Your task to perform on an android device: change the clock display to digital Image 0: 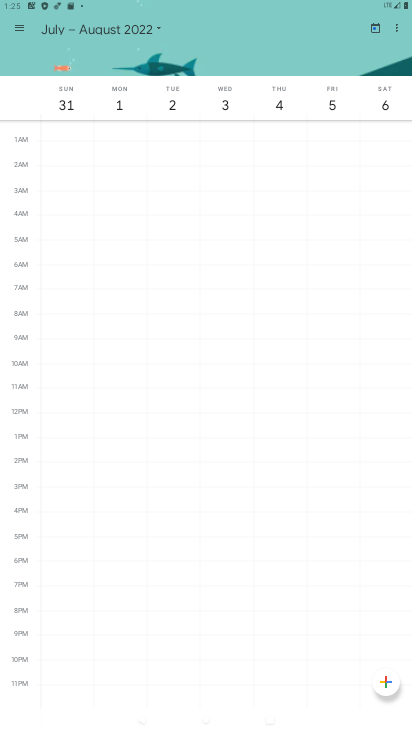
Step 0: press home button
Your task to perform on an android device: change the clock display to digital Image 1: 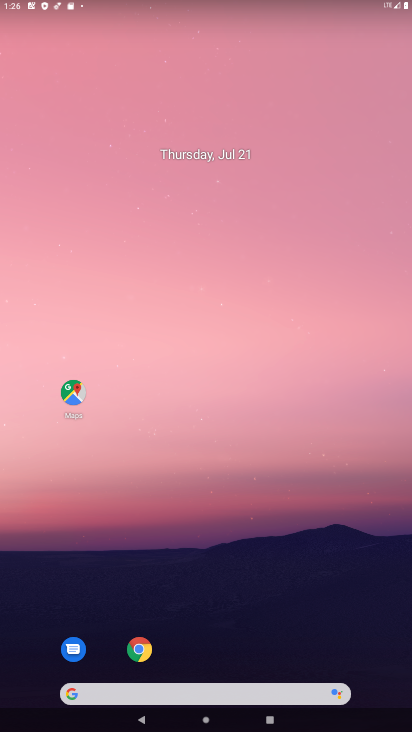
Step 1: drag from (226, 726) to (221, 300)
Your task to perform on an android device: change the clock display to digital Image 2: 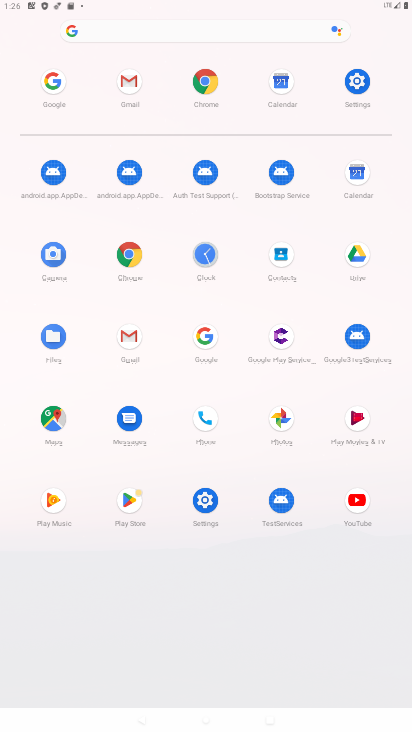
Step 2: click (204, 255)
Your task to perform on an android device: change the clock display to digital Image 3: 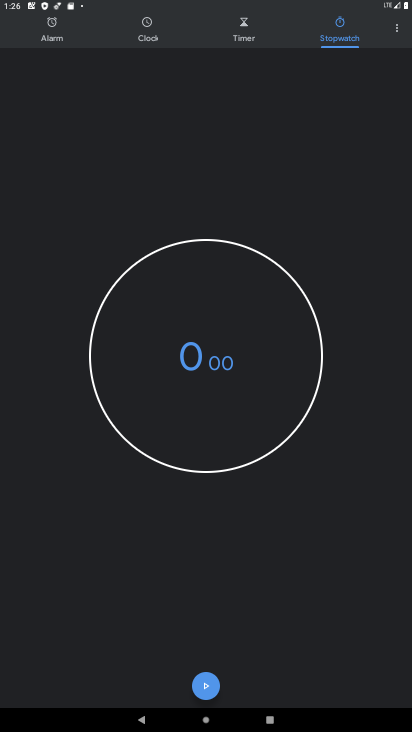
Step 3: click (398, 32)
Your task to perform on an android device: change the clock display to digital Image 4: 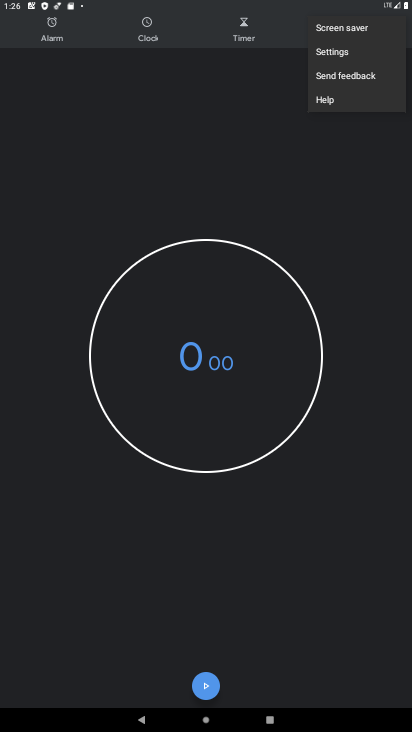
Step 4: click (331, 50)
Your task to perform on an android device: change the clock display to digital Image 5: 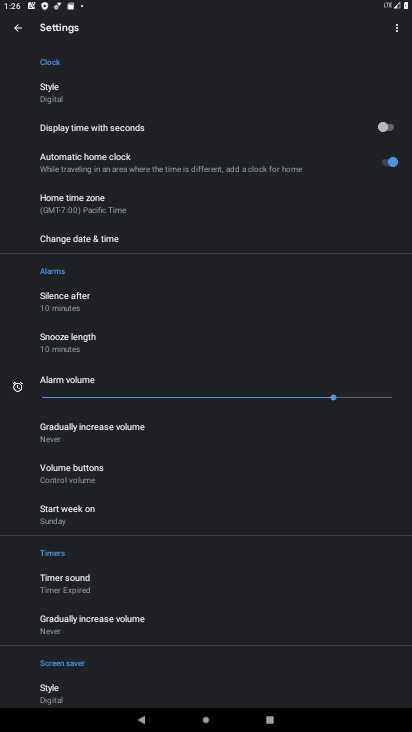
Step 5: task complete